Your task to perform on an android device: refresh tabs in the chrome app Image 0: 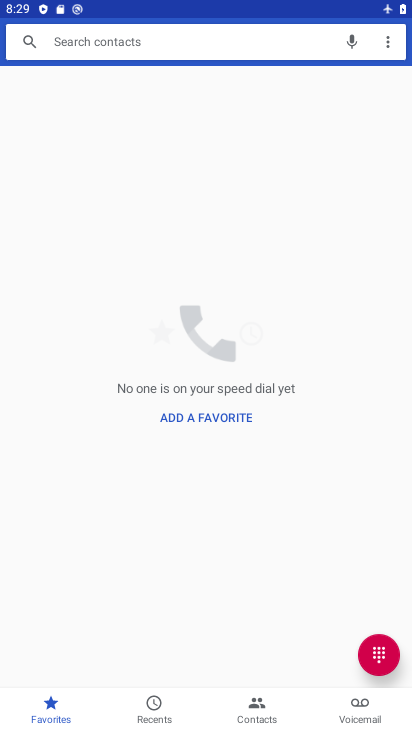
Step 0: press home button
Your task to perform on an android device: refresh tabs in the chrome app Image 1: 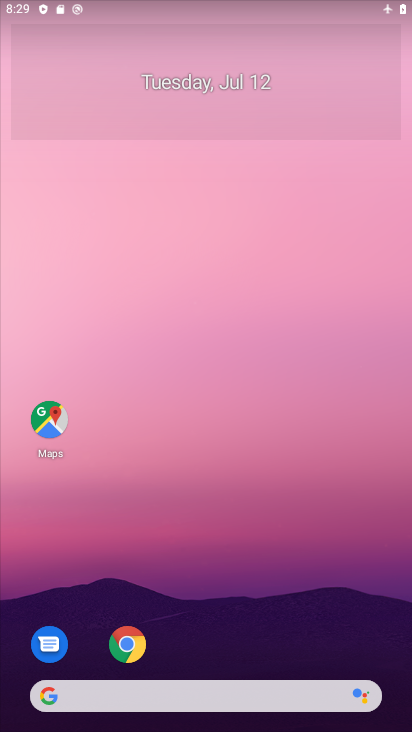
Step 1: click (132, 639)
Your task to perform on an android device: refresh tabs in the chrome app Image 2: 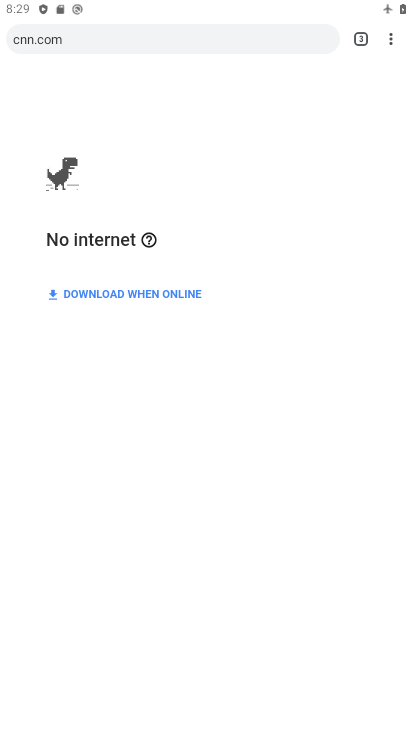
Step 2: click (383, 37)
Your task to perform on an android device: refresh tabs in the chrome app Image 3: 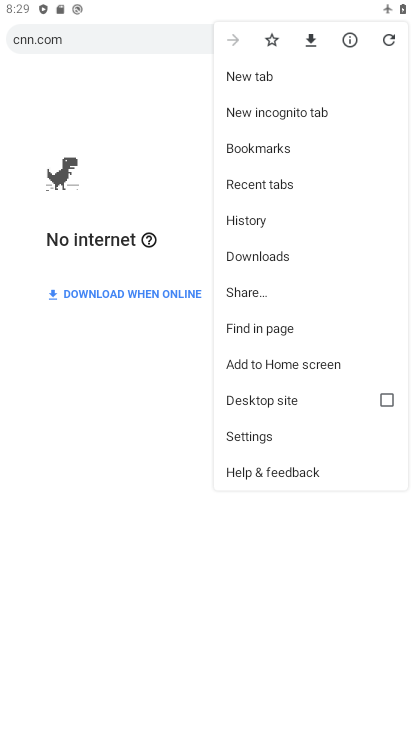
Step 3: click (385, 38)
Your task to perform on an android device: refresh tabs in the chrome app Image 4: 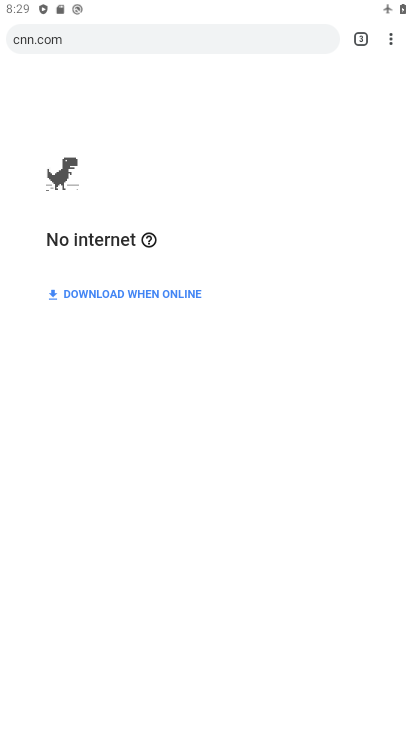
Step 4: task complete